Your task to perform on an android device: open sync settings in chrome Image 0: 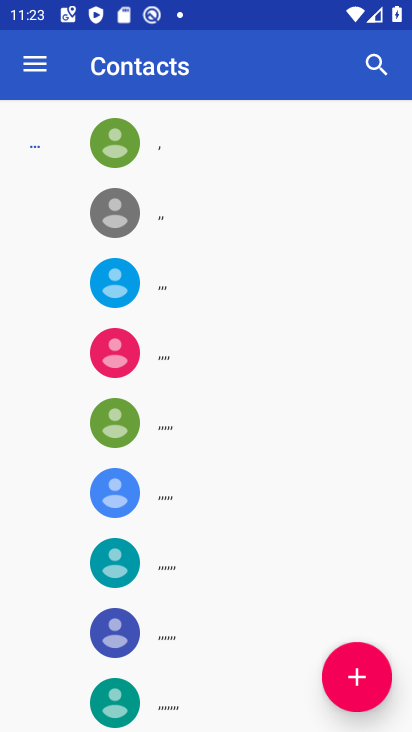
Step 0: press home button
Your task to perform on an android device: open sync settings in chrome Image 1: 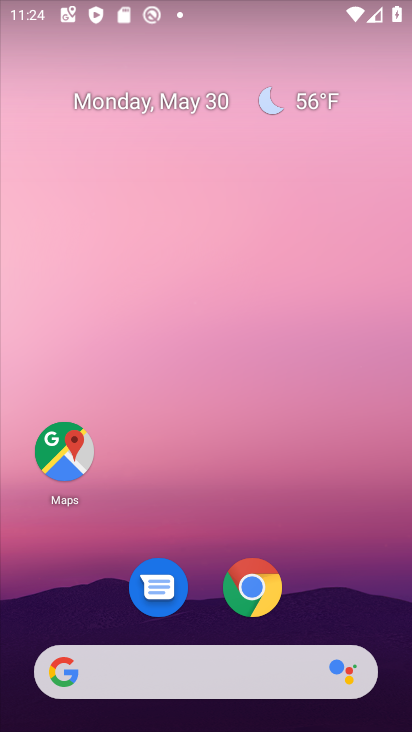
Step 1: click (237, 565)
Your task to perform on an android device: open sync settings in chrome Image 2: 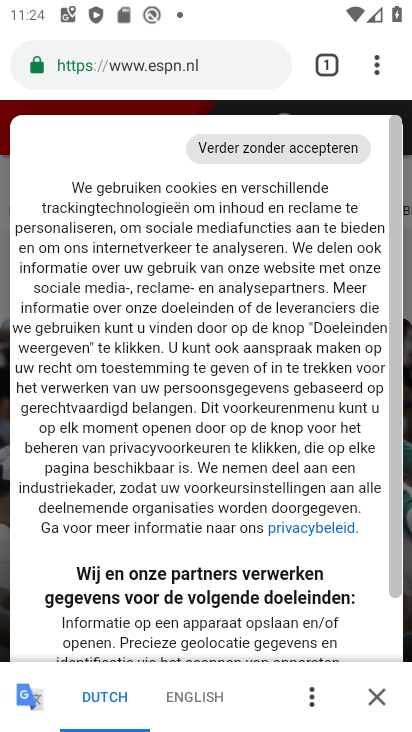
Step 2: click (366, 65)
Your task to perform on an android device: open sync settings in chrome Image 3: 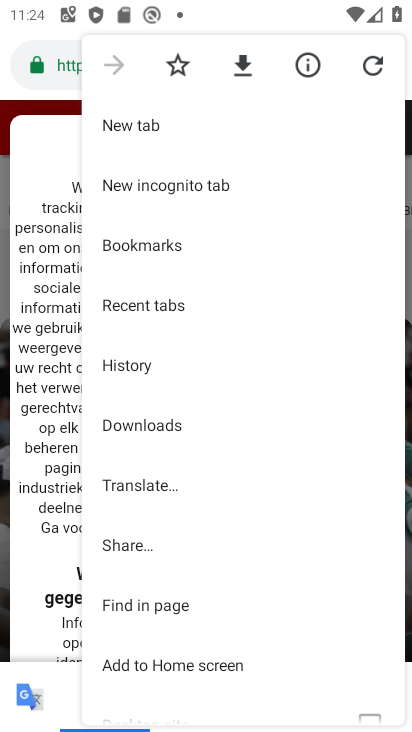
Step 3: drag from (162, 609) to (190, 152)
Your task to perform on an android device: open sync settings in chrome Image 4: 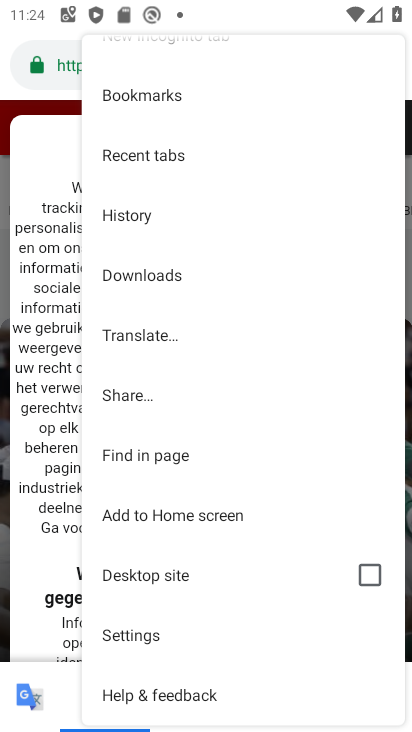
Step 4: click (150, 638)
Your task to perform on an android device: open sync settings in chrome Image 5: 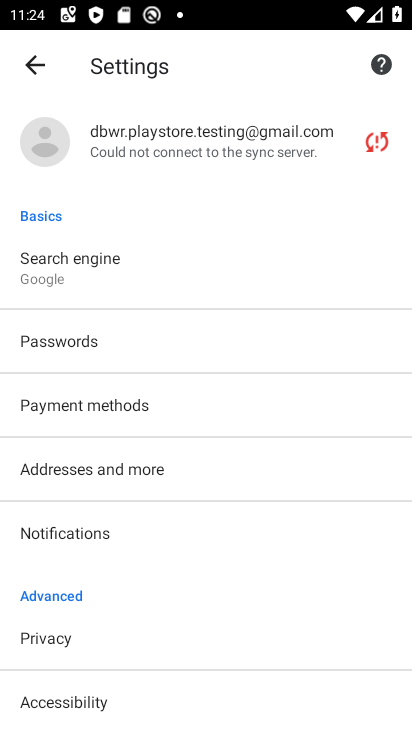
Step 5: click (208, 154)
Your task to perform on an android device: open sync settings in chrome Image 6: 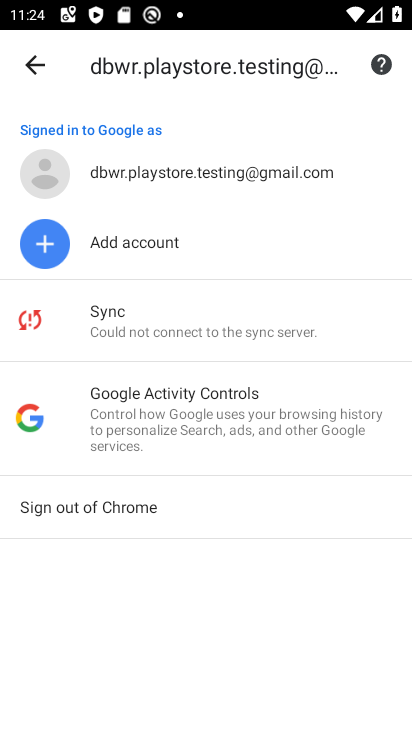
Step 6: click (130, 318)
Your task to perform on an android device: open sync settings in chrome Image 7: 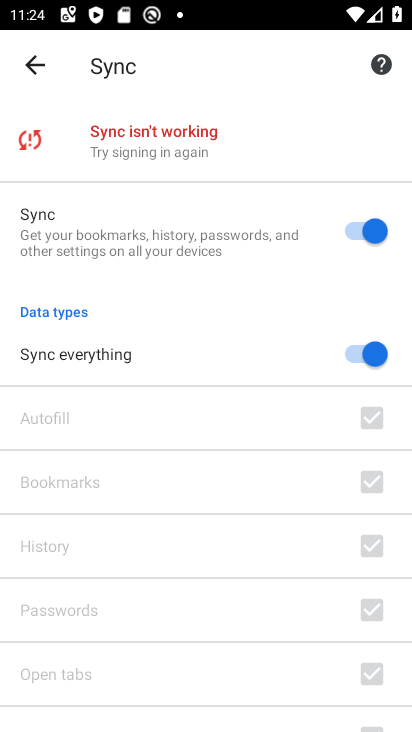
Step 7: task complete